Your task to perform on an android device: check storage Image 0: 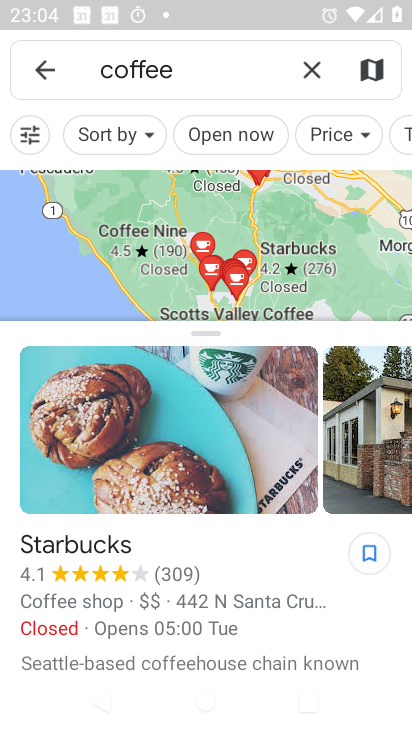
Step 0: press home button
Your task to perform on an android device: check storage Image 1: 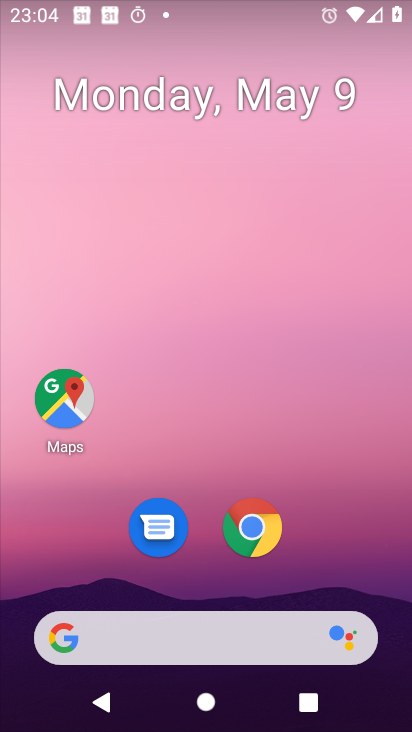
Step 1: drag from (200, 582) to (200, 100)
Your task to perform on an android device: check storage Image 2: 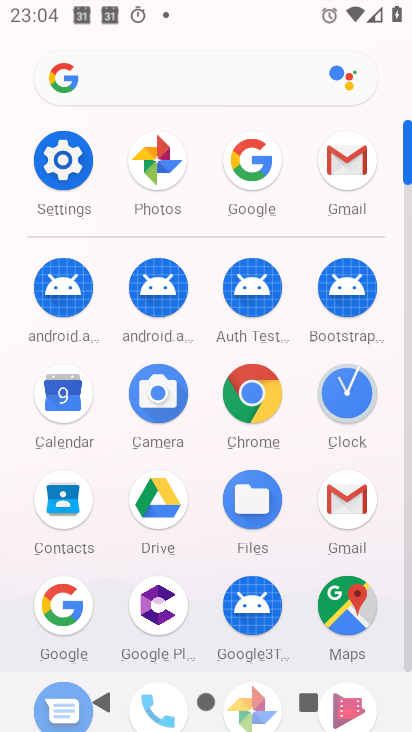
Step 2: click (60, 168)
Your task to perform on an android device: check storage Image 3: 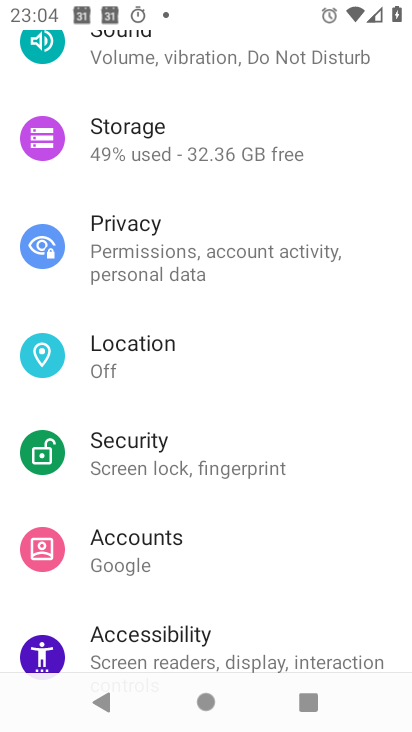
Step 3: click (147, 141)
Your task to perform on an android device: check storage Image 4: 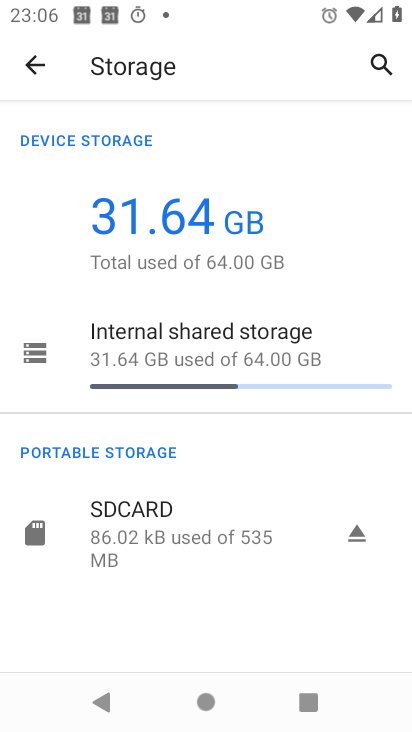
Step 4: task complete